Your task to perform on an android device: move an email to a new category in the gmail app Image 0: 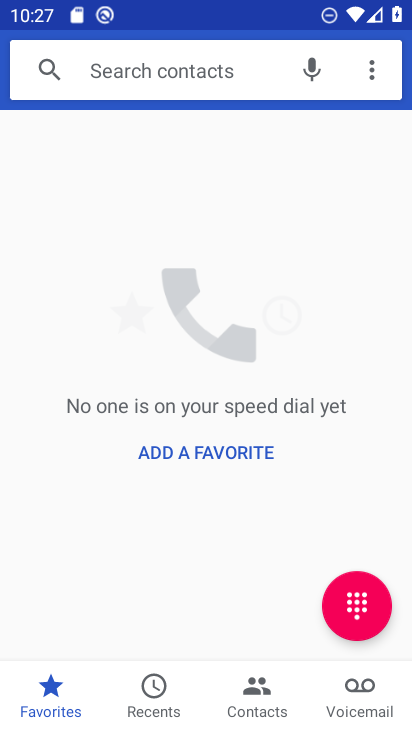
Step 0: press home button
Your task to perform on an android device: move an email to a new category in the gmail app Image 1: 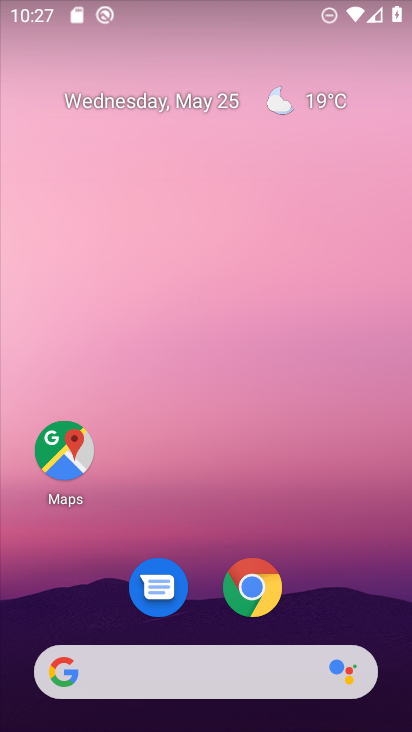
Step 1: drag from (383, 613) to (356, 86)
Your task to perform on an android device: move an email to a new category in the gmail app Image 2: 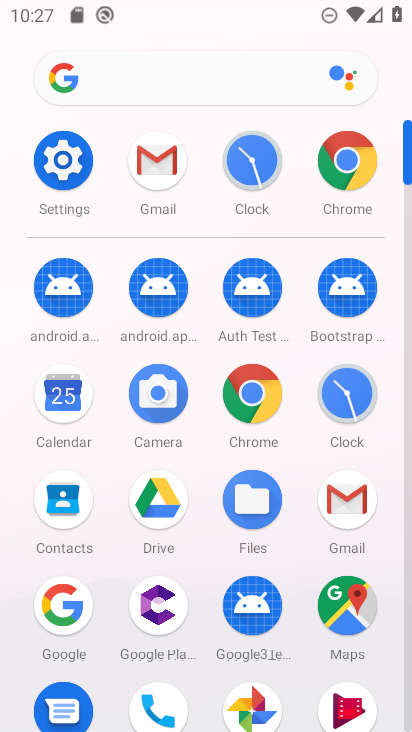
Step 2: click (408, 697)
Your task to perform on an android device: move an email to a new category in the gmail app Image 3: 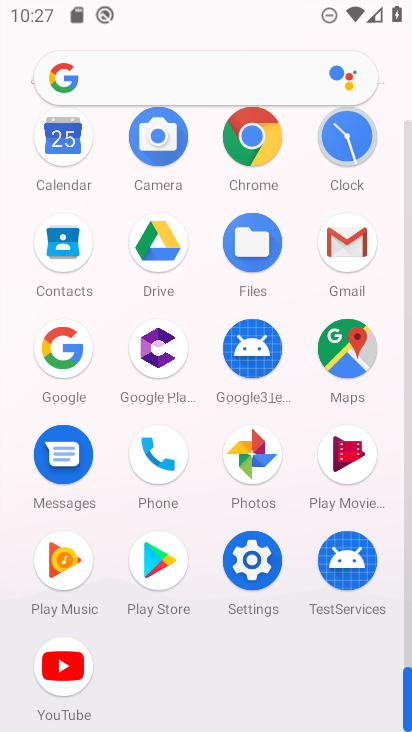
Step 3: click (348, 245)
Your task to perform on an android device: move an email to a new category in the gmail app Image 4: 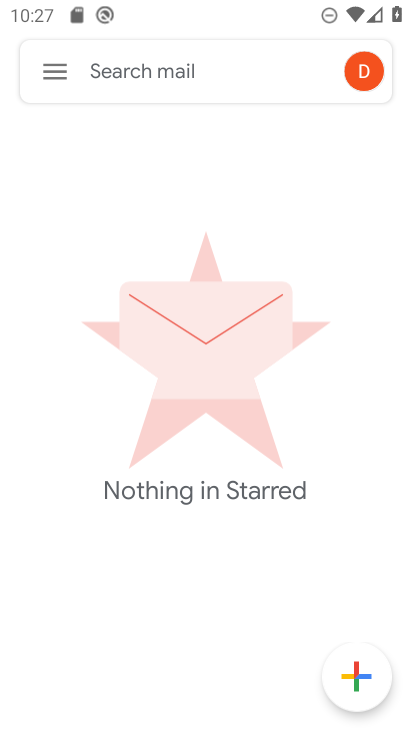
Step 4: click (58, 73)
Your task to perform on an android device: move an email to a new category in the gmail app Image 5: 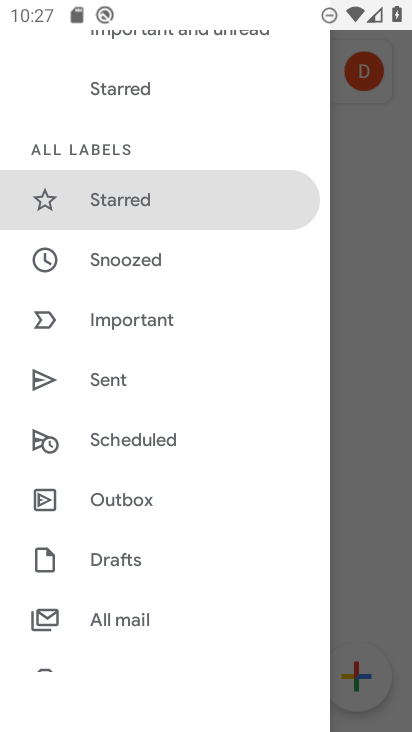
Step 5: click (131, 620)
Your task to perform on an android device: move an email to a new category in the gmail app Image 6: 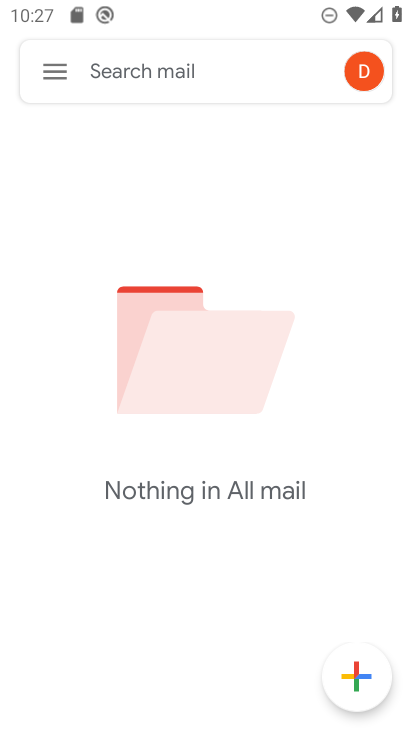
Step 6: task complete